Your task to perform on an android device: What's the weather today? Image 0: 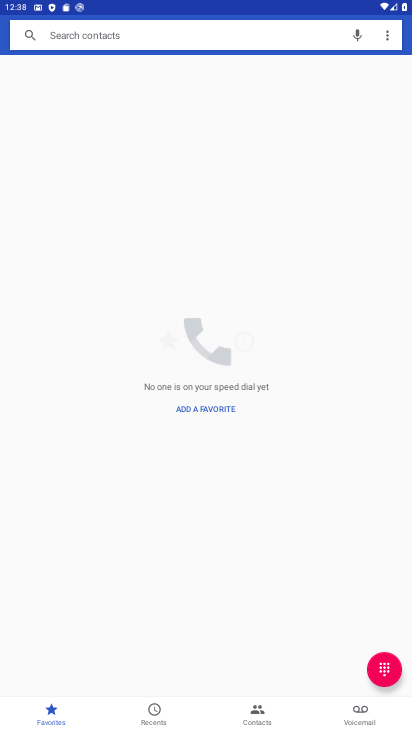
Step 0: press home button
Your task to perform on an android device: What's the weather today? Image 1: 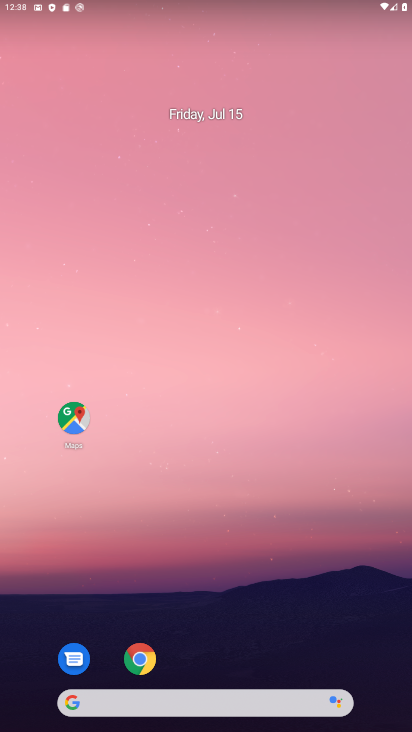
Step 1: drag from (193, 722) to (173, 52)
Your task to perform on an android device: What's the weather today? Image 2: 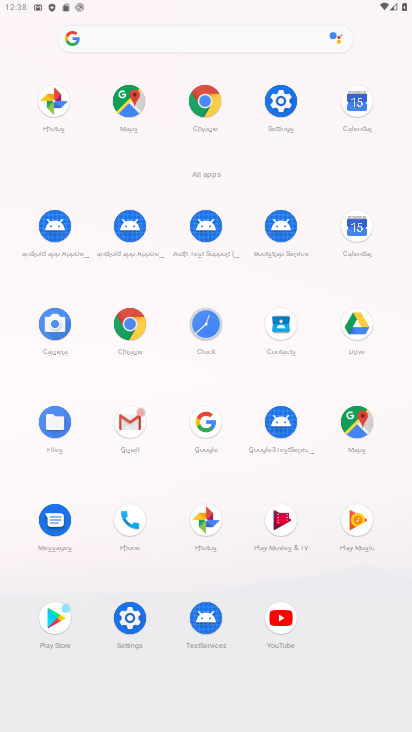
Step 2: click (205, 424)
Your task to perform on an android device: What's the weather today? Image 3: 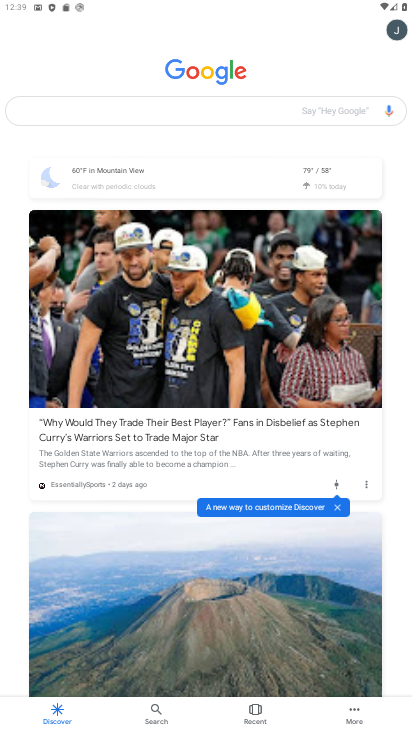
Step 3: click (109, 174)
Your task to perform on an android device: What's the weather today? Image 4: 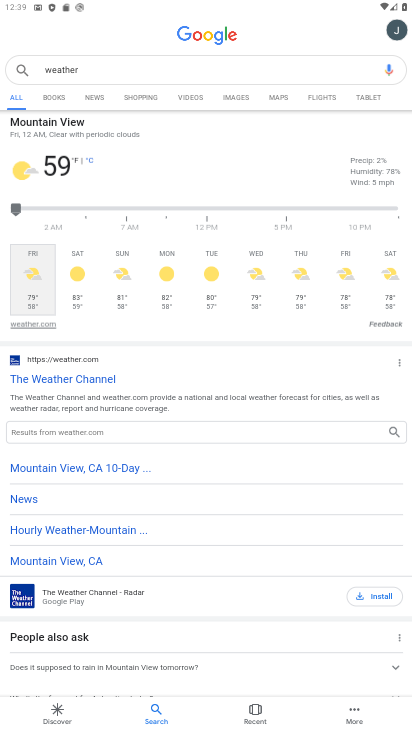
Step 4: task complete